Your task to perform on an android device: allow cookies in the chrome app Image 0: 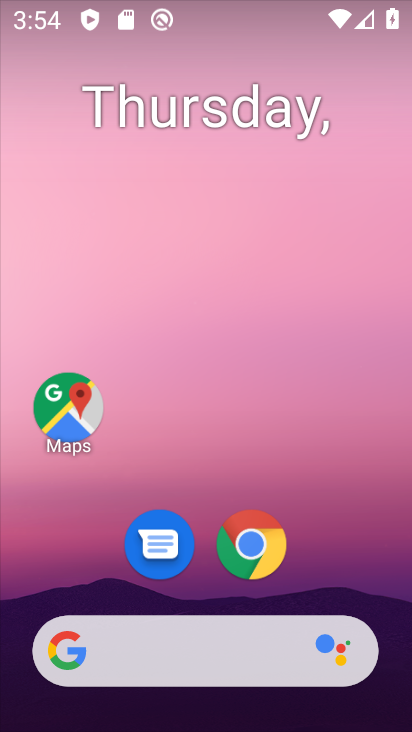
Step 0: click (264, 567)
Your task to perform on an android device: allow cookies in the chrome app Image 1: 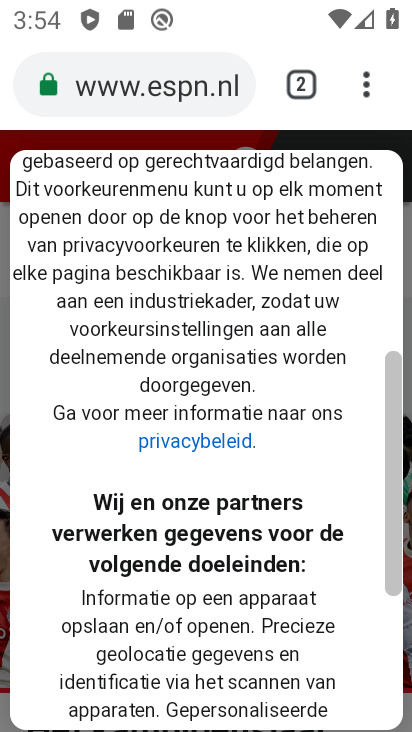
Step 1: click (364, 80)
Your task to perform on an android device: allow cookies in the chrome app Image 2: 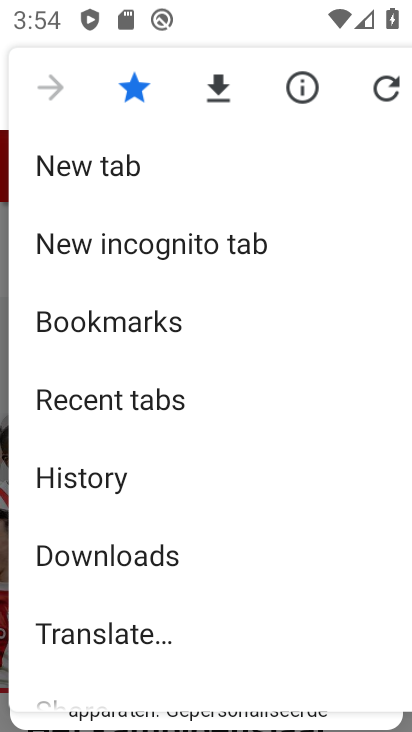
Step 2: drag from (272, 550) to (210, 166)
Your task to perform on an android device: allow cookies in the chrome app Image 3: 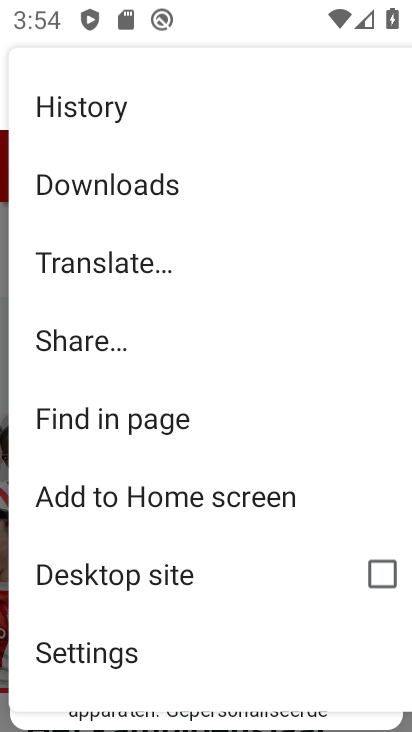
Step 3: click (144, 649)
Your task to perform on an android device: allow cookies in the chrome app Image 4: 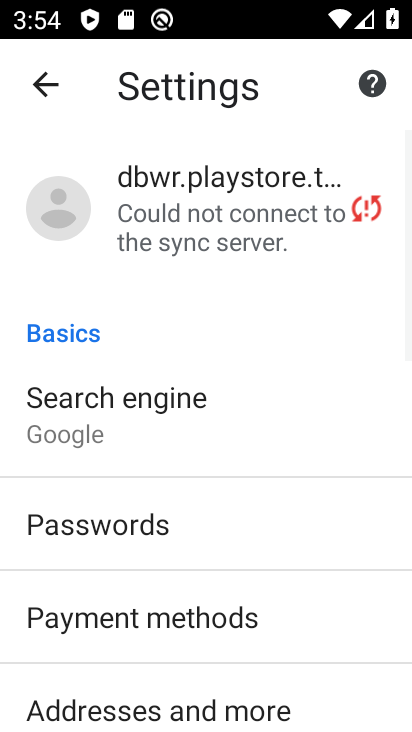
Step 4: drag from (243, 531) to (215, 208)
Your task to perform on an android device: allow cookies in the chrome app Image 5: 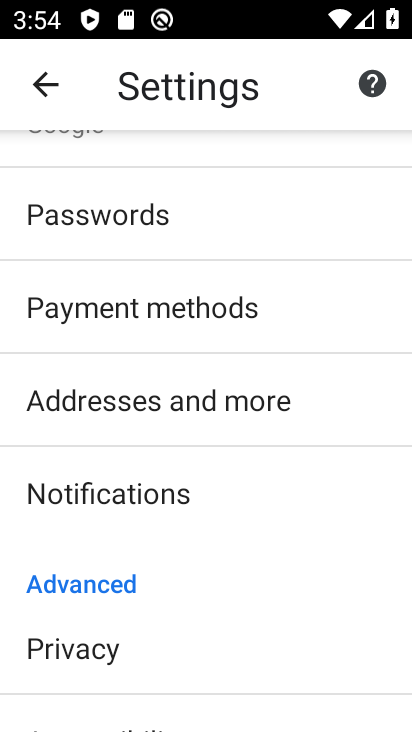
Step 5: drag from (201, 357) to (170, 180)
Your task to perform on an android device: allow cookies in the chrome app Image 6: 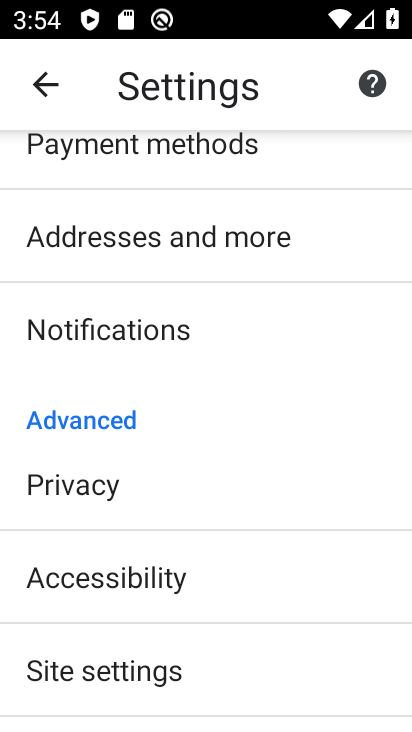
Step 6: click (167, 658)
Your task to perform on an android device: allow cookies in the chrome app Image 7: 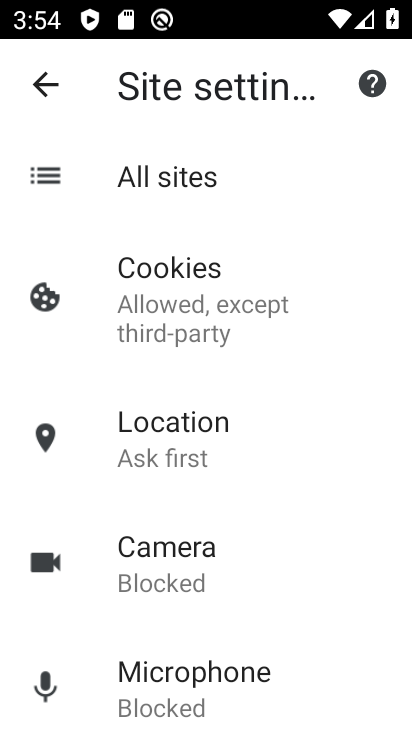
Step 7: click (128, 303)
Your task to perform on an android device: allow cookies in the chrome app Image 8: 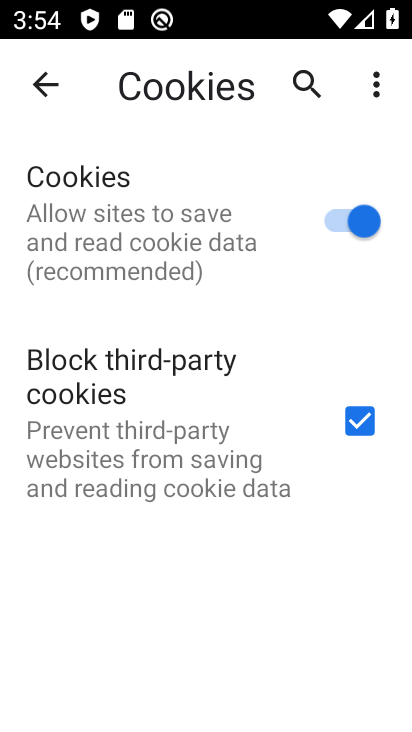
Step 8: task complete